Your task to perform on an android device: Search for dining sets on article.com Image 0: 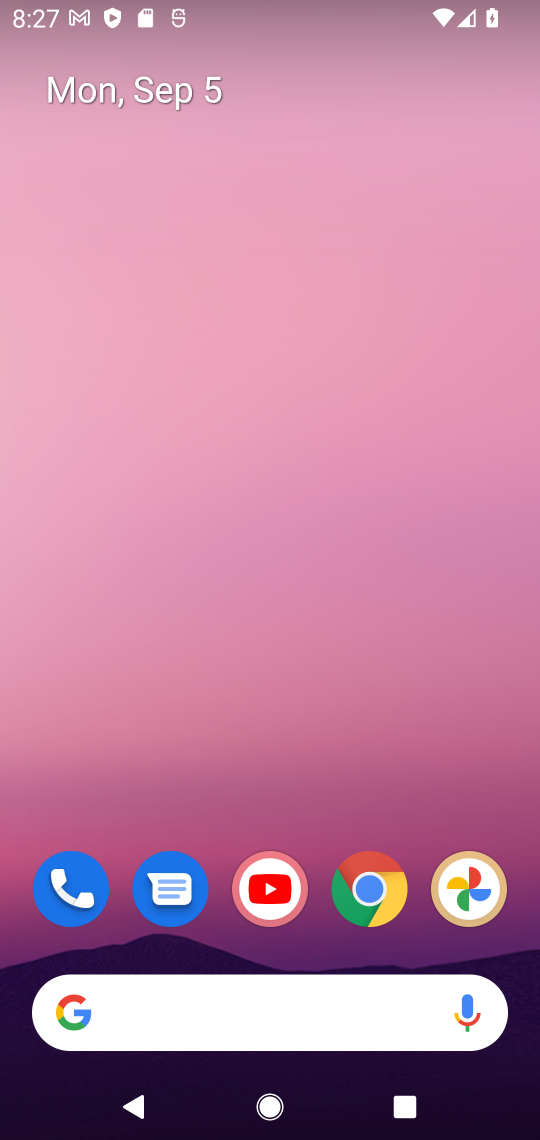
Step 0: click (271, 1000)
Your task to perform on an android device: Search for dining sets on article.com Image 1: 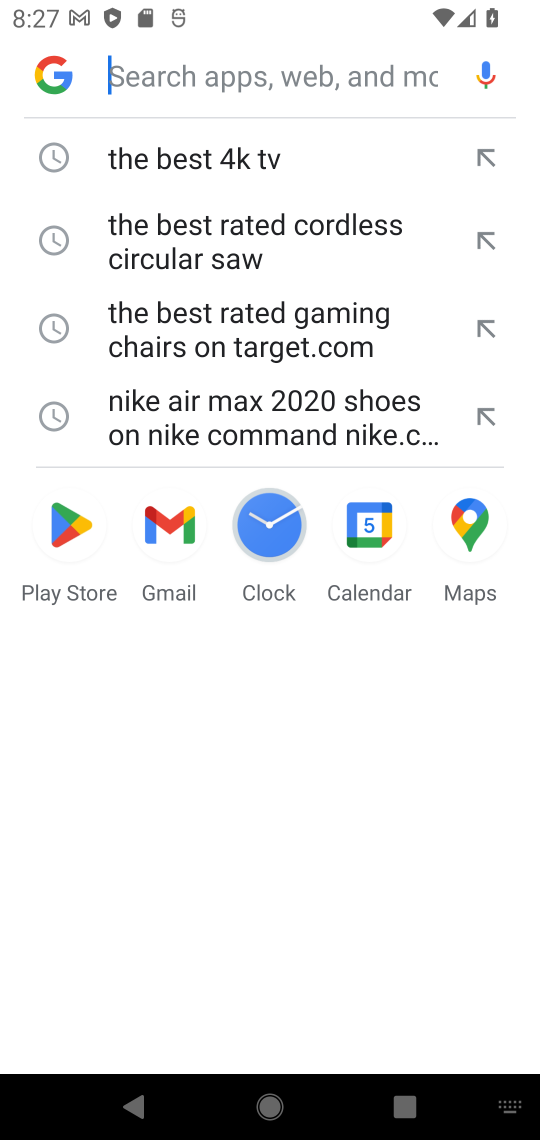
Step 1: type "dining sets on article.com"
Your task to perform on an android device: Search for dining sets on article.com Image 2: 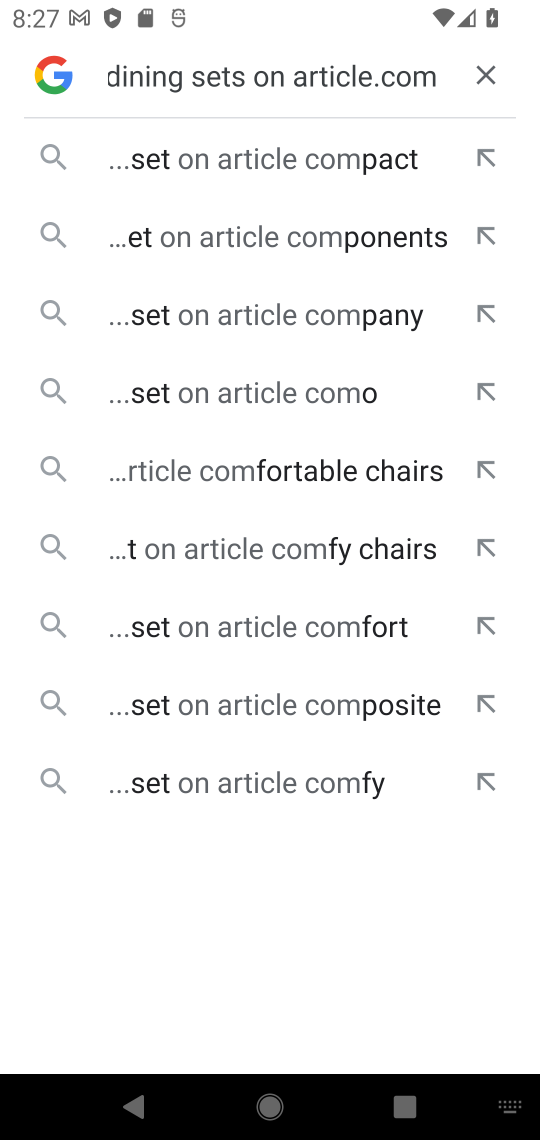
Step 2: click (368, 150)
Your task to perform on an android device: Search for dining sets on article.com Image 3: 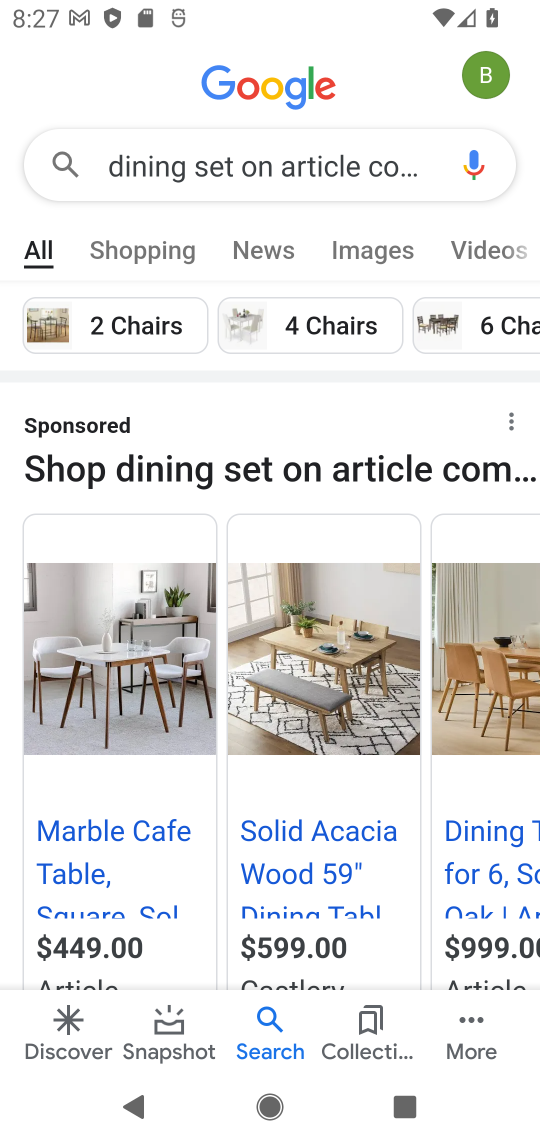
Step 3: task complete